Your task to perform on an android device: turn off picture-in-picture Image 0: 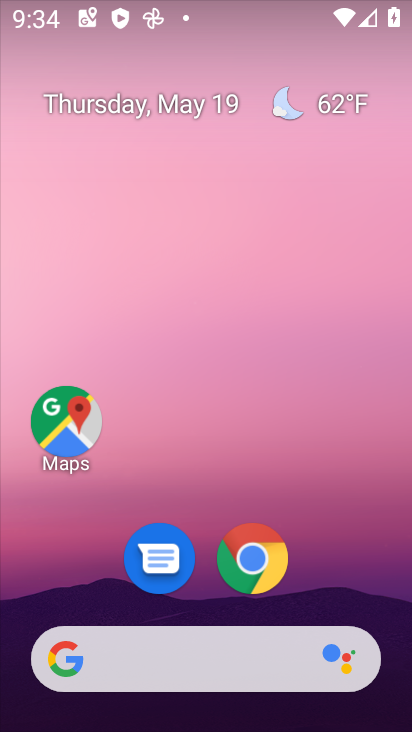
Step 0: click (254, 555)
Your task to perform on an android device: turn off picture-in-picture Image 1: 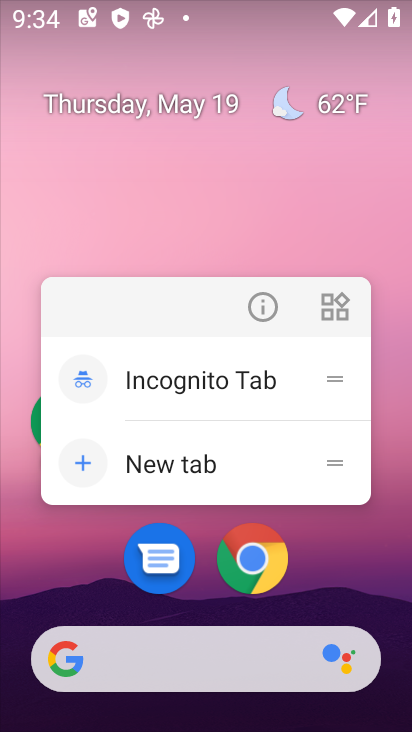
Step 1: click (268, 306)
Your task to perform on an android device: turn off picture-in-picture Image 2: 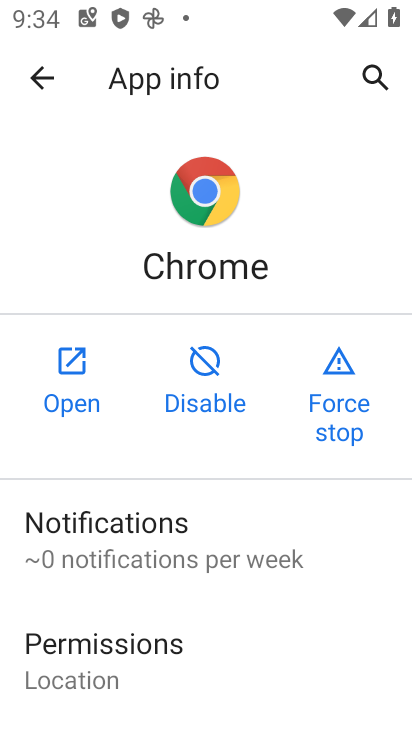
Step 2: drag from (195, 592) to (249, 468)
Your task to perform on an android device: turn off picture-in-picture Image 3: 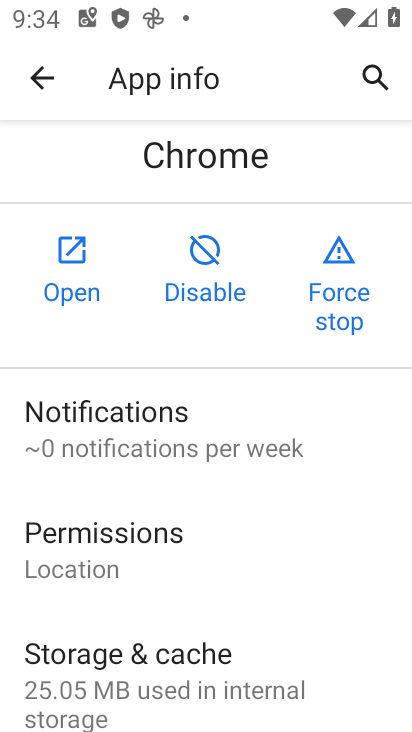
Step 3: drag from (155, 600) to (244, 432)
Your task to perform on an android device: turn off picture-in-picture Image 4: 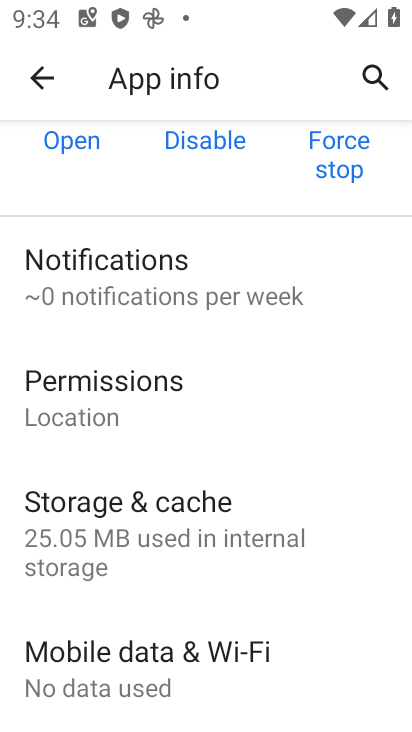
Step 4: drag from (143, 587) to (192, 504)
Your task to perform on an android device: turn off picture-in-picture Image 5: 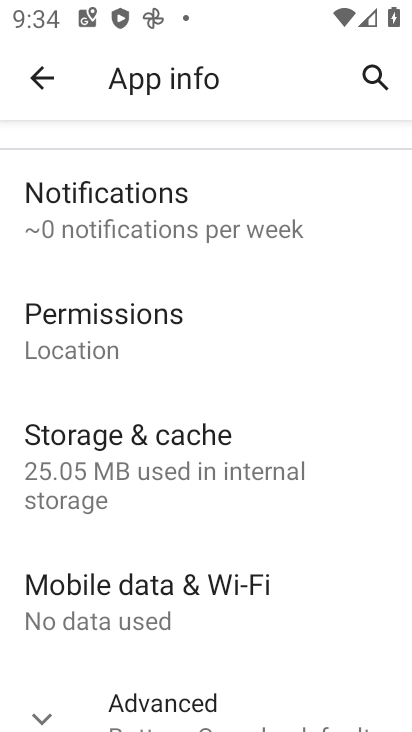
Step 5: drag from (173, 646) to (201, 510)
Your task to perform on an android device: turn off picture-in-picture Image 6: 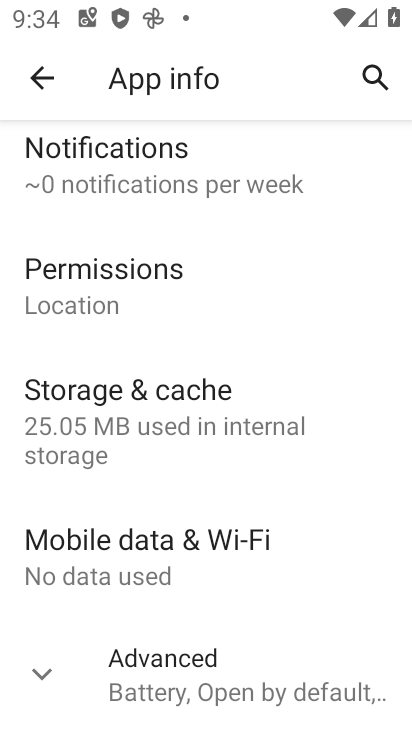
Step 6: click (166, 675)
Your task to perform on an android device: turn off picture-in-picture Image 7: 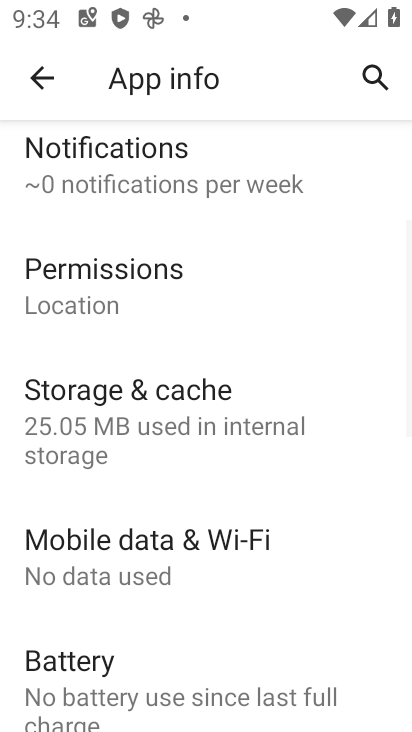
Step 7: drag from (163, 629) to (206, 491)
Your task to perform on an android device: turn off picture-in-picture Image 8: 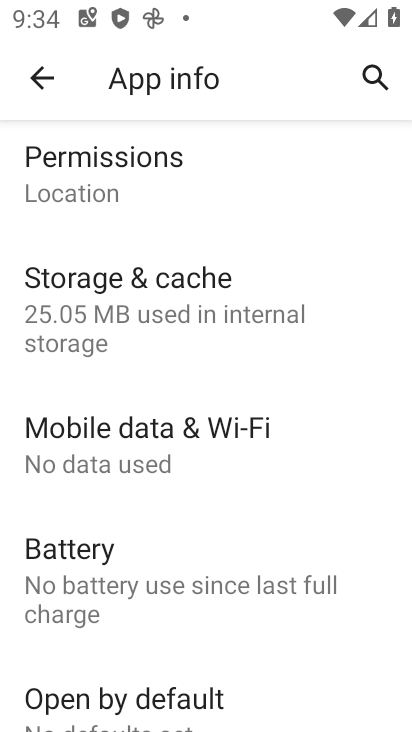
Step 8: drag from (171, 636) to (198, 525)
Your task to perform on an android device: turn off picture-in-picture Image 9: 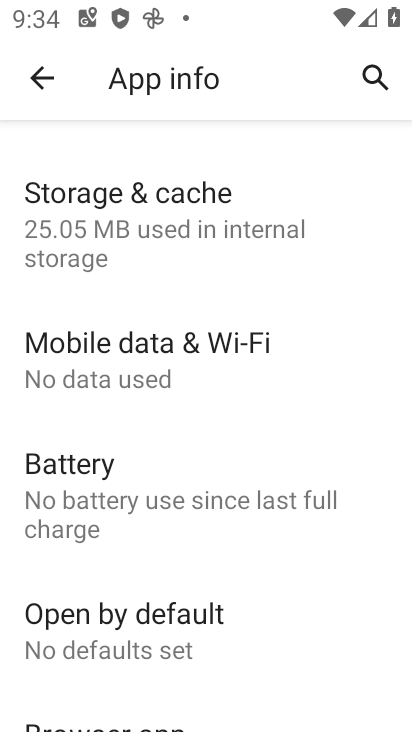
Step 9: drag from (163, 666) to (210, 576)
Your task to perform on an android device: turn off picture-in-picture Image 10: 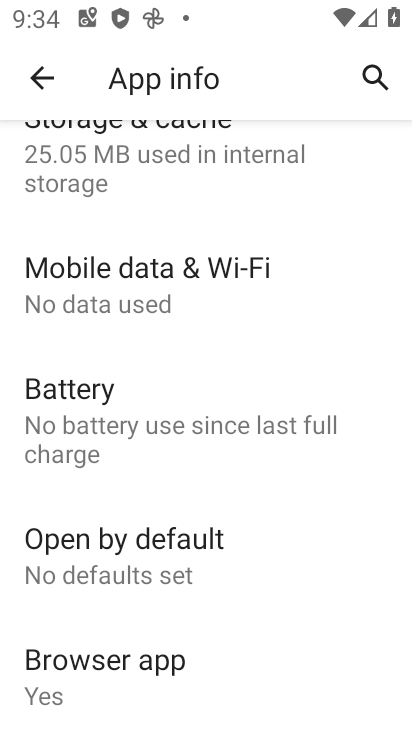
Step 10: drag from (162, 626) to (223, 525)
Your task to perform on an android device: turn off picture-in-picture Image 11: 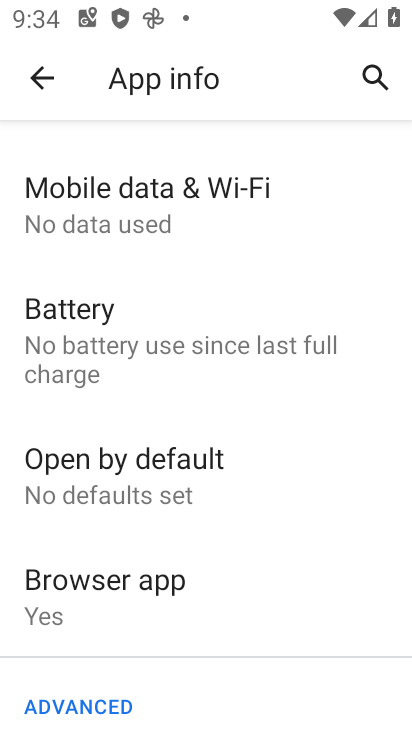
Step 11: drag from (175, 643) to (217, 539)
Your task to perform on an android device: turn off picture-in-picture Image 12: 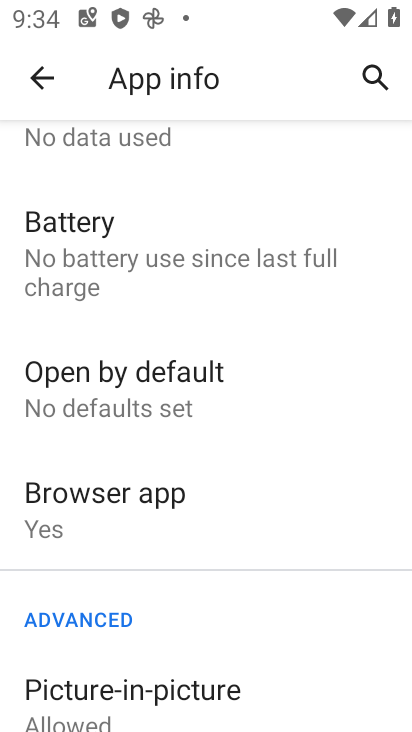
Step 12: drag from (156, 658) to (249, 539)
Your task to perform on an android device: turn off picture-in-picture Image 13: 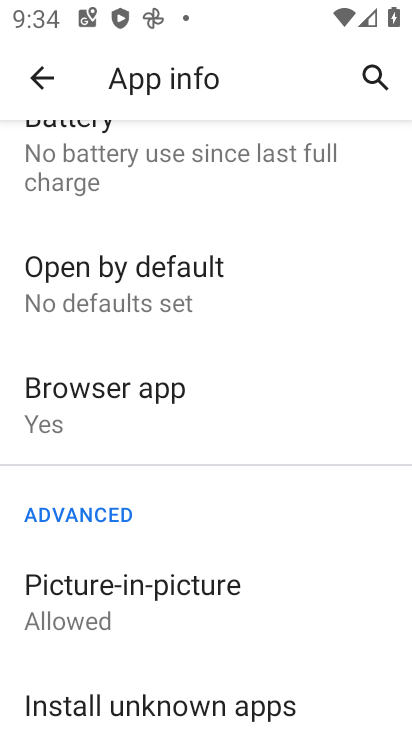
Step 13: click (200, 590)
Your task to perform on an android device: turn off picture-in-picture Image 14: 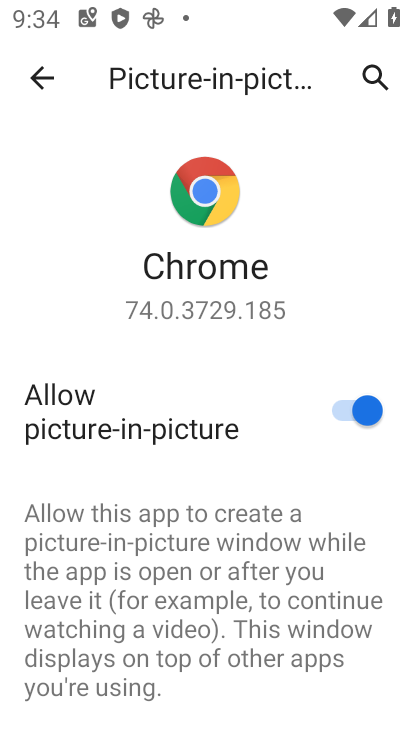
Step 14: click (369, 412)
Your task to perform on an android device: turn off picture-in-picture Image 15: 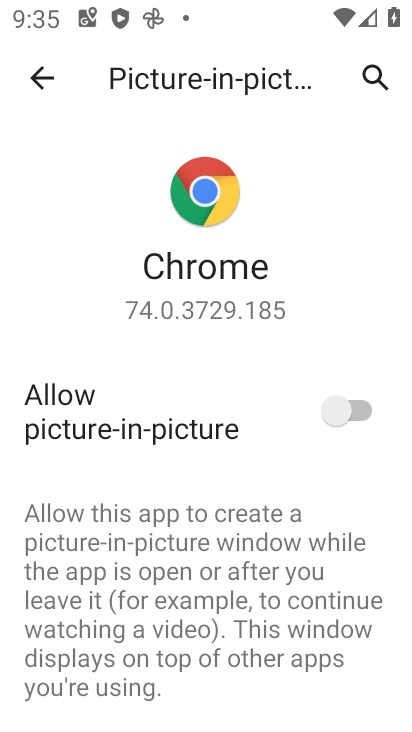
Step 15: task complete